Your task to perform on an android device: Open display settings Image 0: 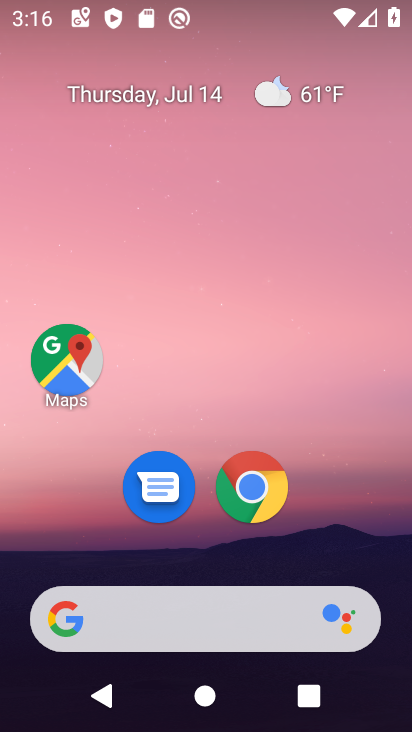
Step 0: drag from (170, 577) to (216, 92)
Your task to perform on an android device: Open display settings Image 1: 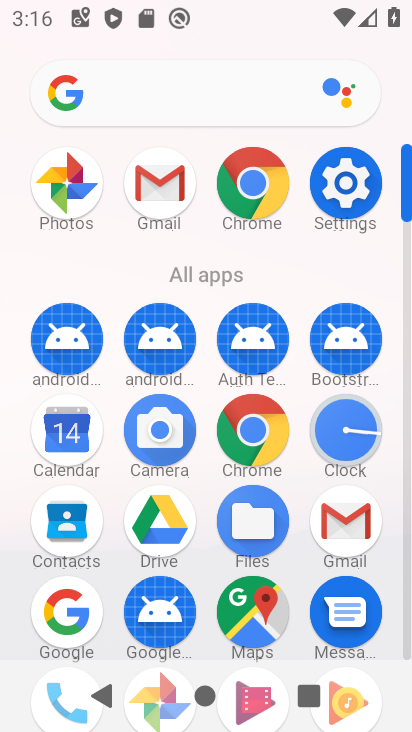
Step 1: click (354, 178)
Your task to perform on an android device: Open display settings Image 2: 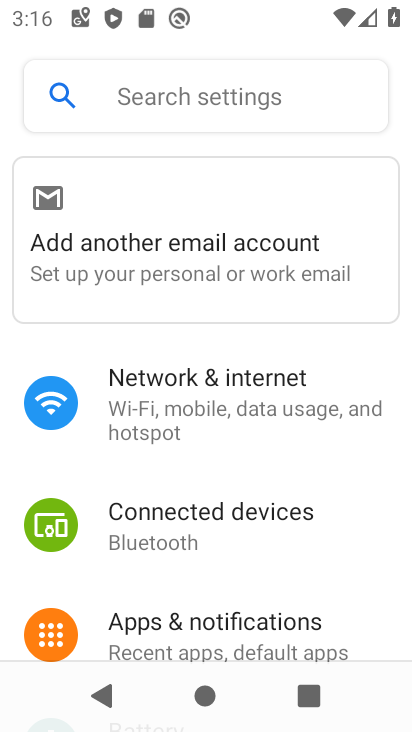
Step 2: drag from (170, 576) to (279, 42)
Your task to perform on an android device: Open display settings Image 3: 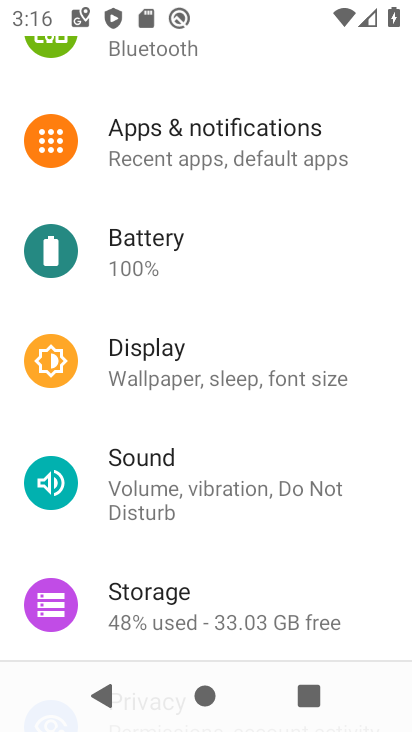
Step 3: click (183, 373)
Your task to perform on an android device: Open display settings Image 4: 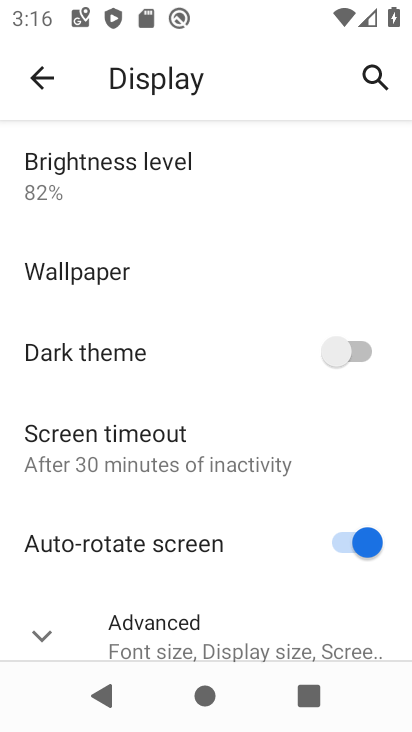
Step 4: task complete